Your task to perform on an android device: turn off data saver in the chrome app Image 0: 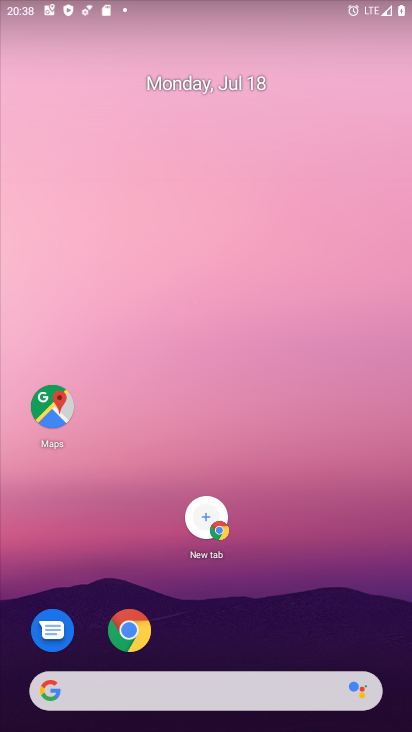
Step 0: click (186, 680)
Your task to perform on an android device: turn off data saver in the chrome app Image 1: 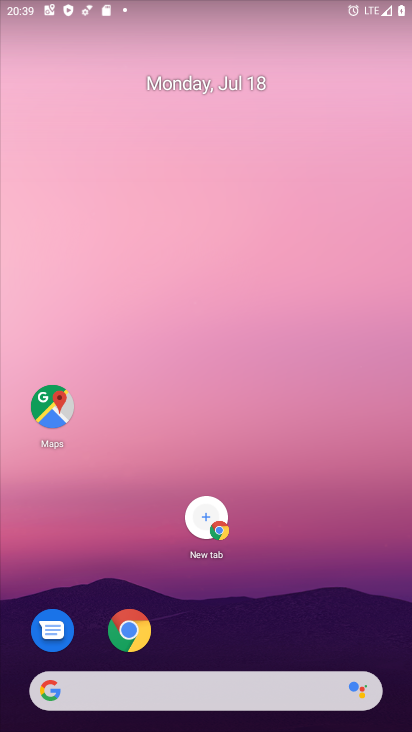
Step 1: click (126, 638)
Your task to perform on an android device: turn off data saver in the chrome app Image 2: 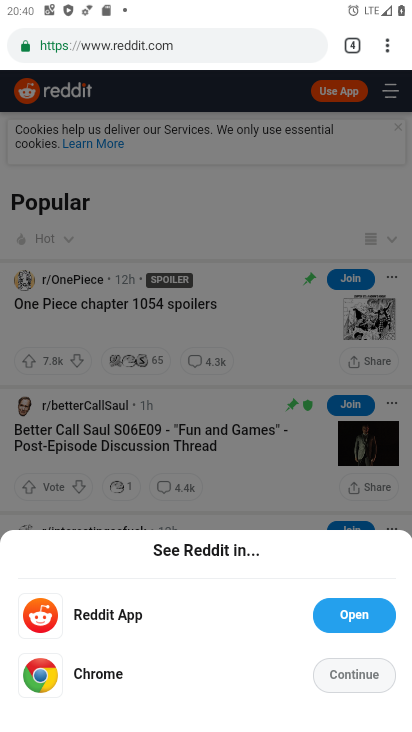
Step 2: click (387, 41)
Your task to perform on an android device: turn off data saver in the chrome app Image 3: 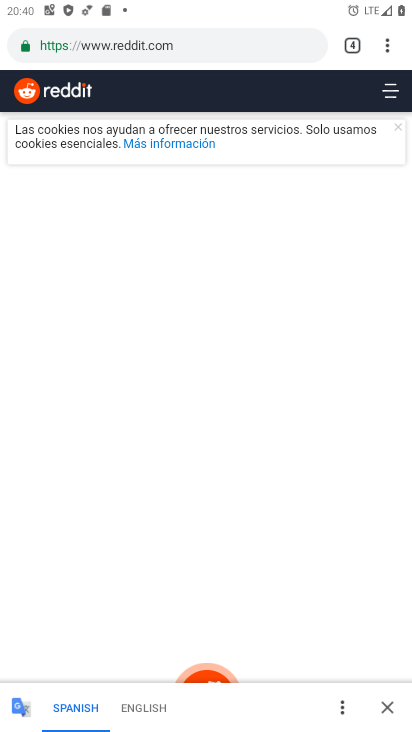
Step 3: click (386, 45)
Your task to perform on an android device: turn off data saver in the chrome app Image 4: 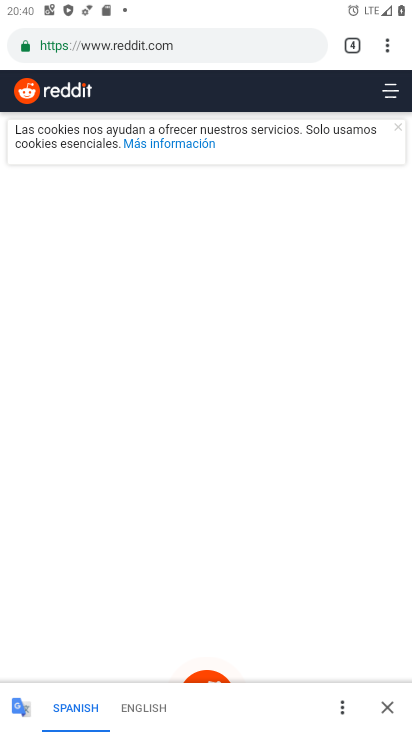
Step 4: click (385, 57)
Your task to perform on an android device: turn off data saver in the chrome app Image 5: 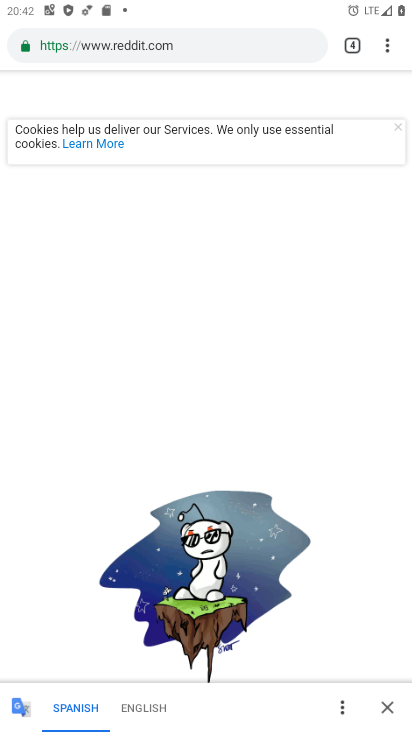
Step 5: press home button
Your task to perform on an android device: turn off data saver in the chrome app Image 6: 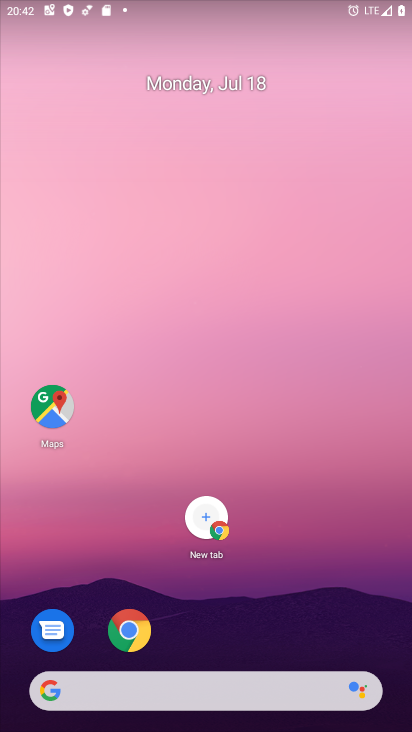
Step 6: click (126, 632)
Your task to perform on an android device: turn off data saver in the chrome app Image 7: 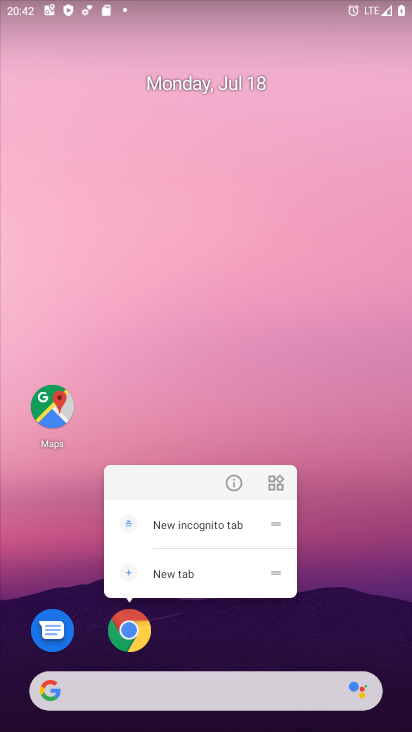
Step 7: click (126, 632)
Your task to perform on an android device: turn off data saver in the chrome app Image 8: 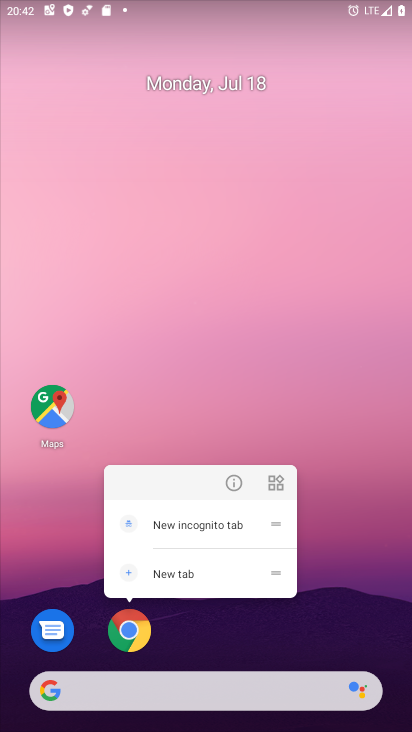
Step 8: click (129, 643)
Your task to perform on an android device: turn off data saver in the chrome app Image 9: 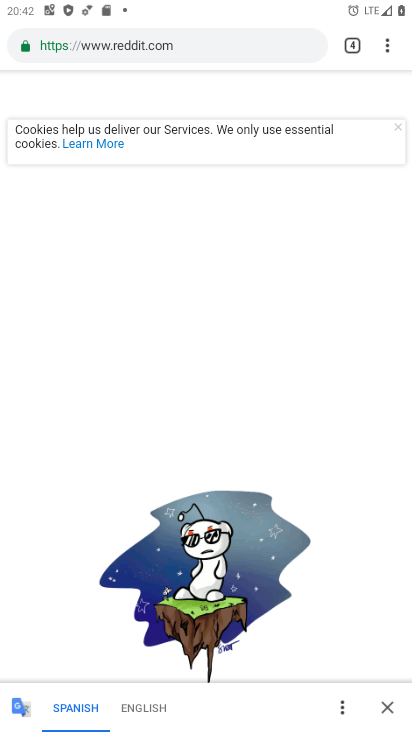
Step 9: click (386, 45)
Your task to perform on an android device: turn off data saver in the chrome app Image 10: 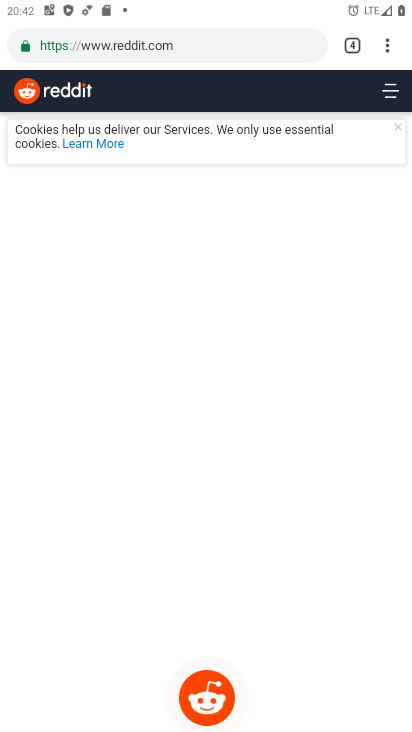
Step 10: click (391, 48)
Your task to perform on an android device: turn off data saver in the chrome app Image 11: 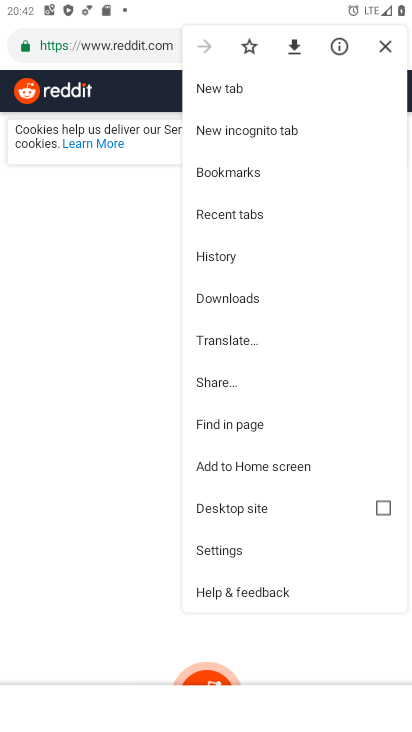
Step 11: click (207, 550)
Your task to perform on an android device: turn off data saver in the chrome app Image 12: 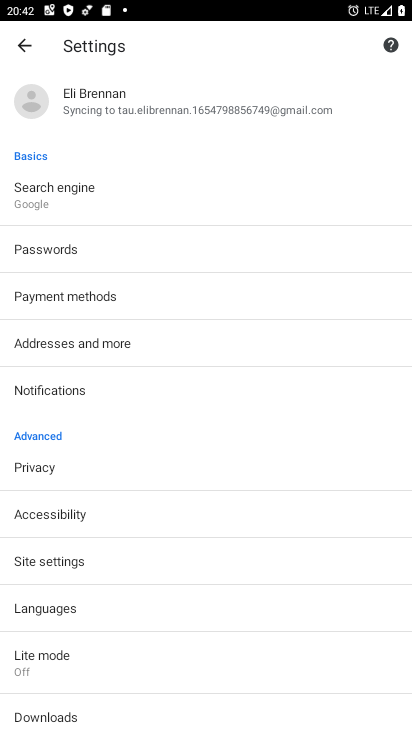
Step 12: click (79, 672)
Your task to perform on an android device: turn off data saver in the chrome app Image 13: 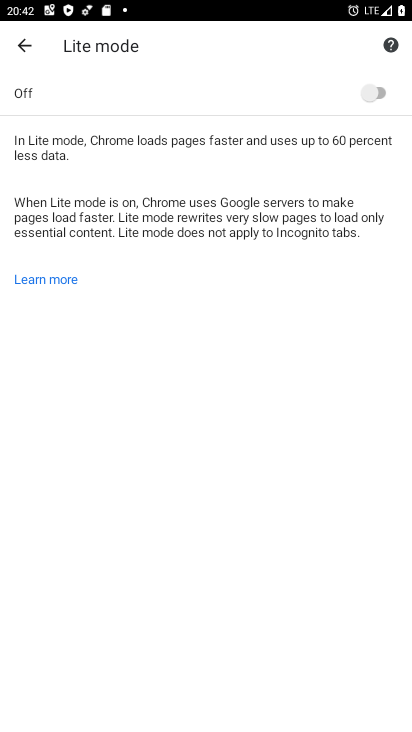
Step 13: task complete